Your task to perform on an android device: remove spam from my inbox in the gmail app Image 0: 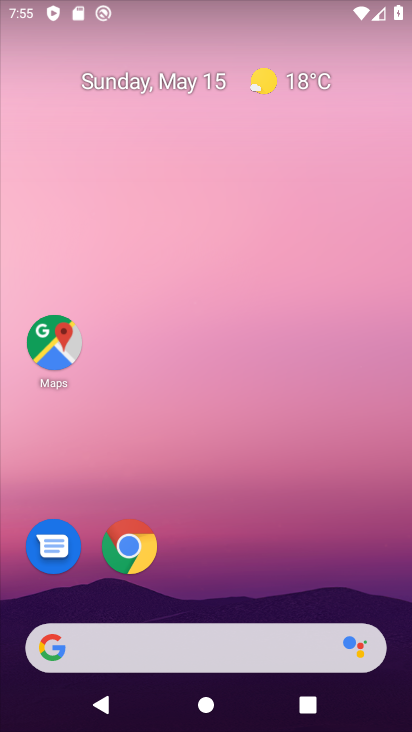
Step 0: drag from (294, 608) to (281, 213)
Your task to perform on an android device: remove spam from my inbox in the gmail app Image 1: 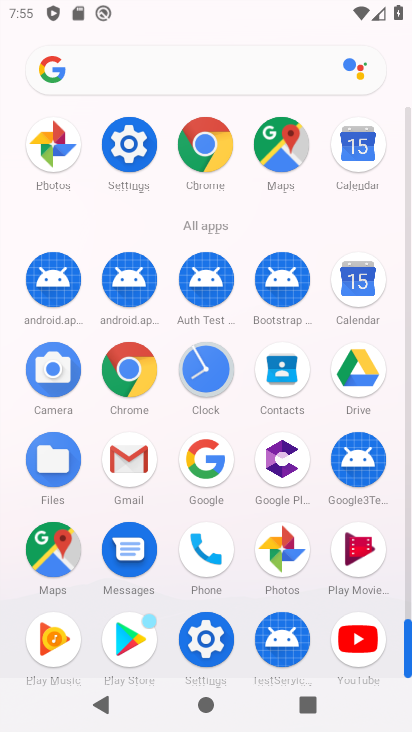
Step 1: click (125, 463)
Your task to perform on an android device: remove spam from my inbox in the gmail app Image 2: 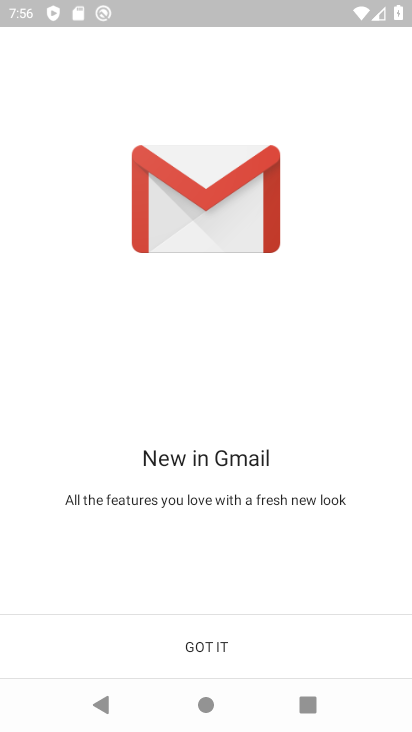
Step 2: click (207, 650)
Your task to perform on an android device: remove spam from my inbox in the gmail app Image 3: 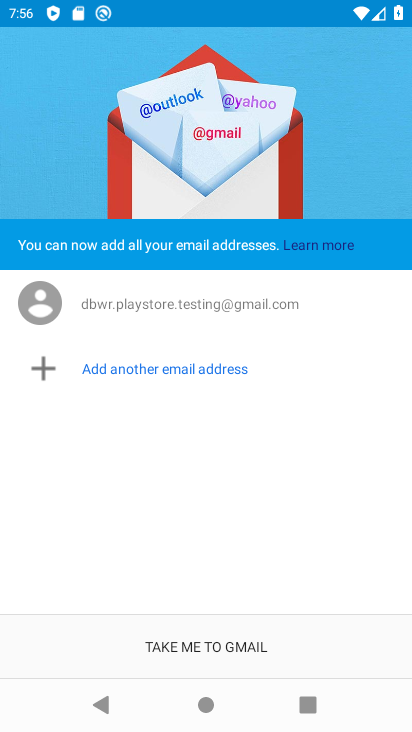
Step 3: click (207, 644)
Your task to perform on an android device: remove spam from my inbox in the gmail app Image 4: 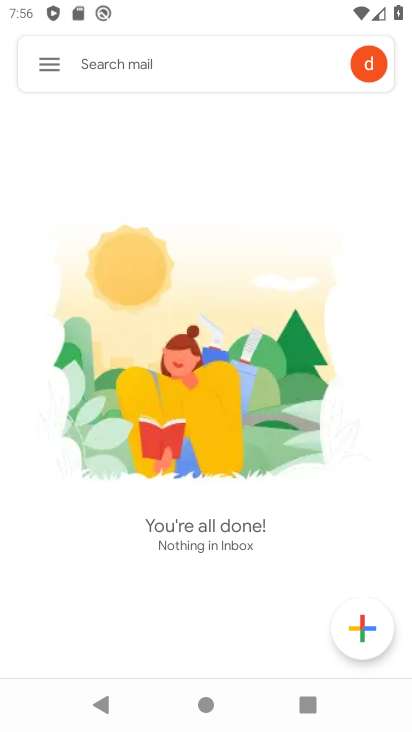
Step 4: click (37, 61)
Your task to perform on an android device: remove spam from my inbox in the gmail app Image 5: 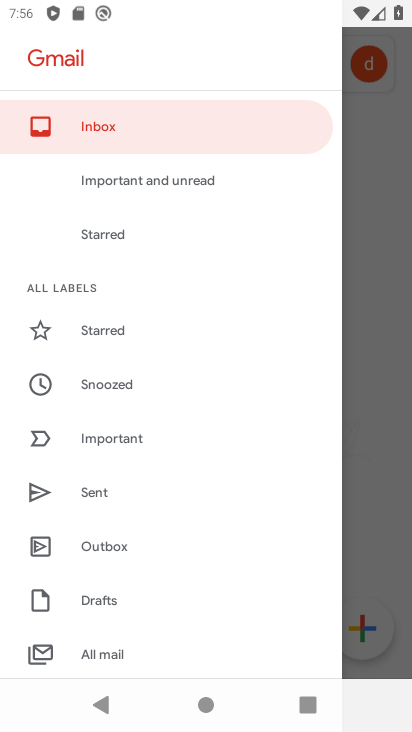
Step 5: drag from (127, 575) to (209, 273)
Your task to perform on an android device: remove spam from my inbox in the gmail app Image 6: 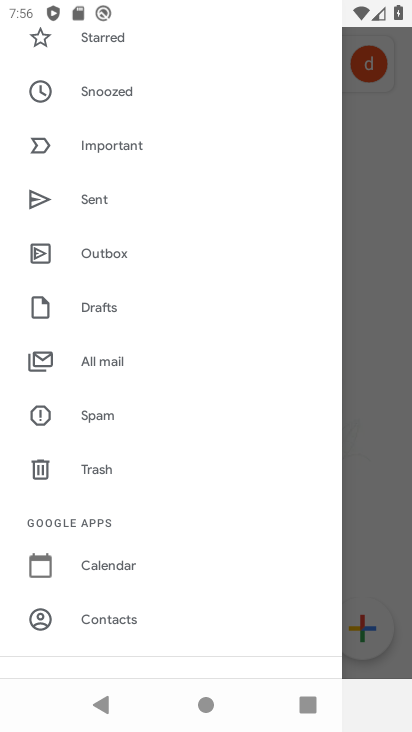
Step 6: click (99, 416)
Your task to perform on an android device: remove spam from my inbox in the gmail app Image 7: 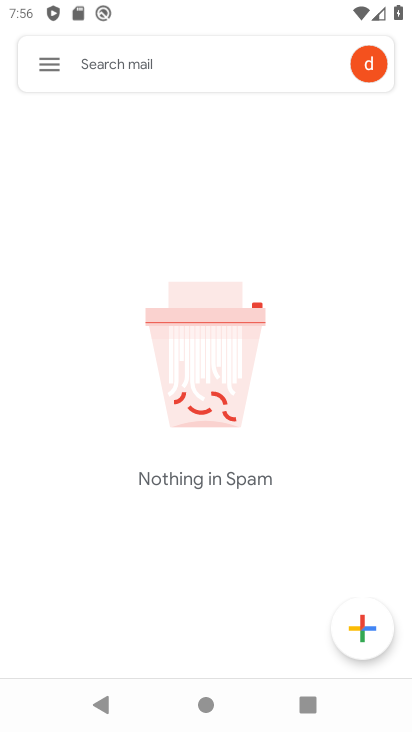
Step 7: task complete